Your task to perform on an android device: turn on improve location accuracy Image 0: 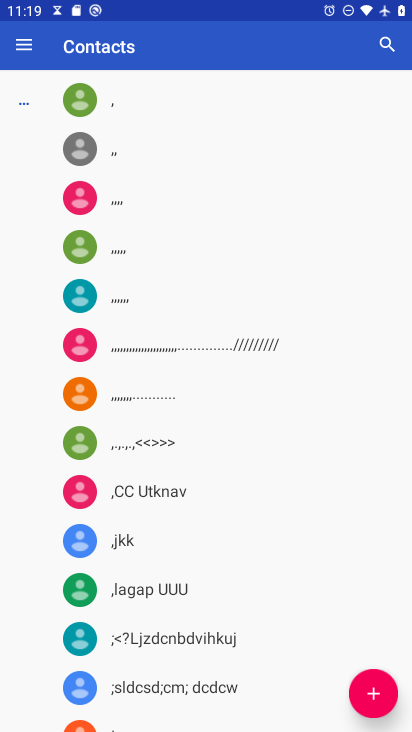
Step 0: press home button
Your task to perform on an android device: turn on improve location accuracy Image 1: 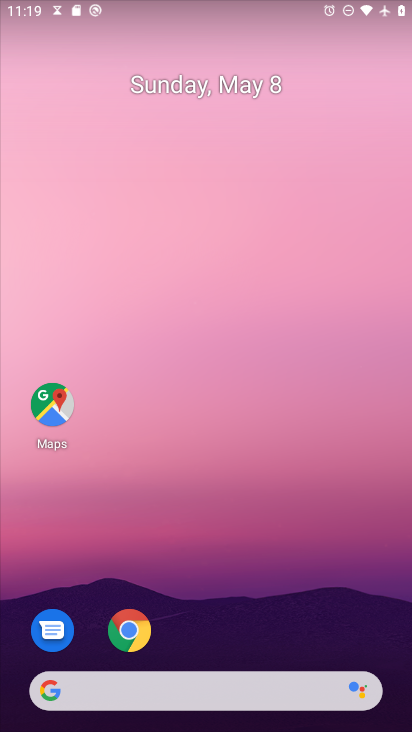
Step 1: drag from (123, 686) to (225, 111)
Your task to perform on an android device: turn on improve location accuracy Image 2: 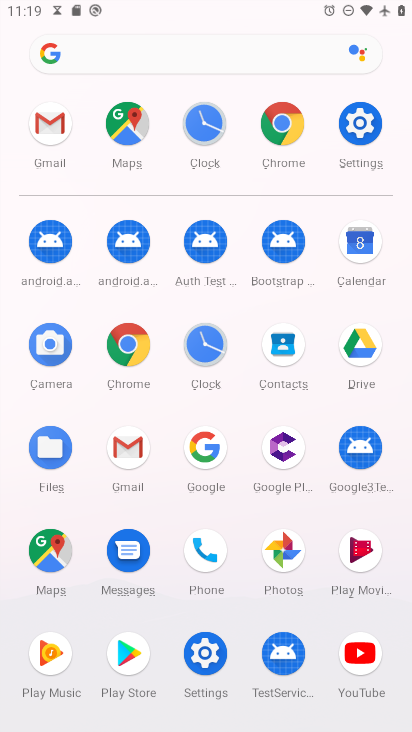
Step 2: click (359, 128)
Your task to perform on an android device: turn on improve location accuracy Image 3: 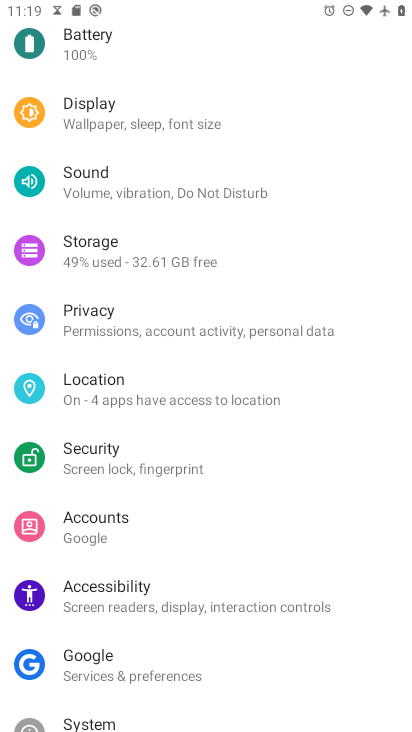
Step 3: click (169, 389)
Your task to perform on an android device: turn on improve location accuracy Image 4: 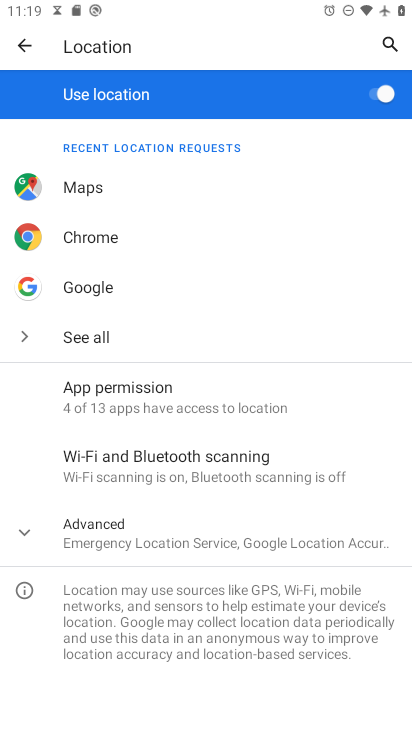
Step 4: click (116, 531)
Your task to perform on an android device: turn on improve location accuracy Image 5: 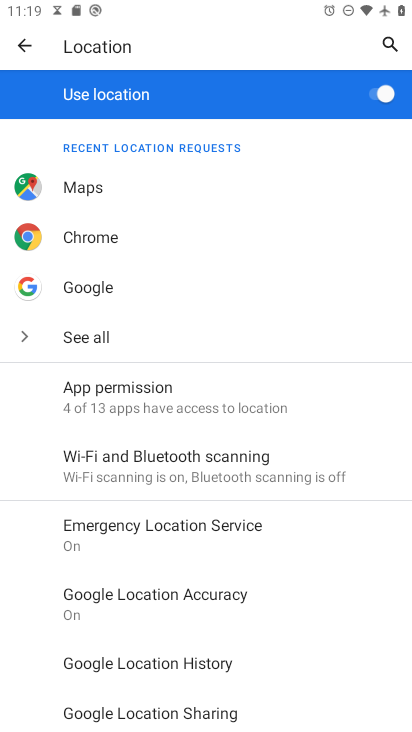
Step 5: click (137, 594)
Your task to perform on an android device: turn on improve location accuracy Image 6: 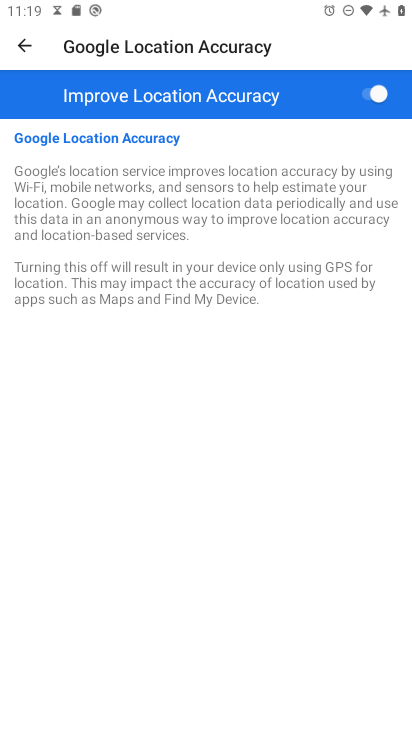
Step 6: task complete